Your task to perform on an android device: Go to settings Image 0: 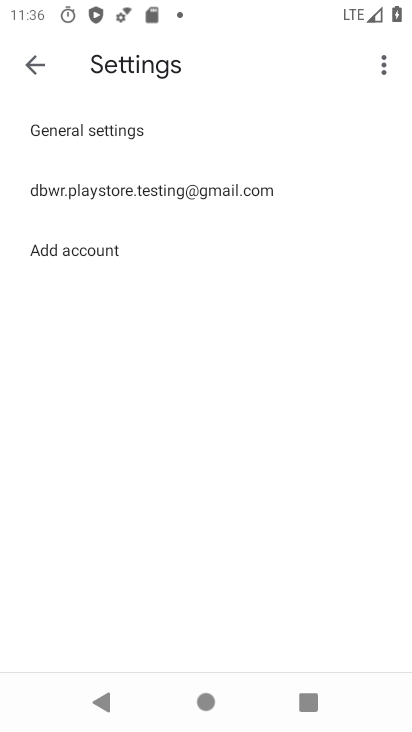
Step 0: press home button
Your task to perform on an android device: Go to settings Image 1: 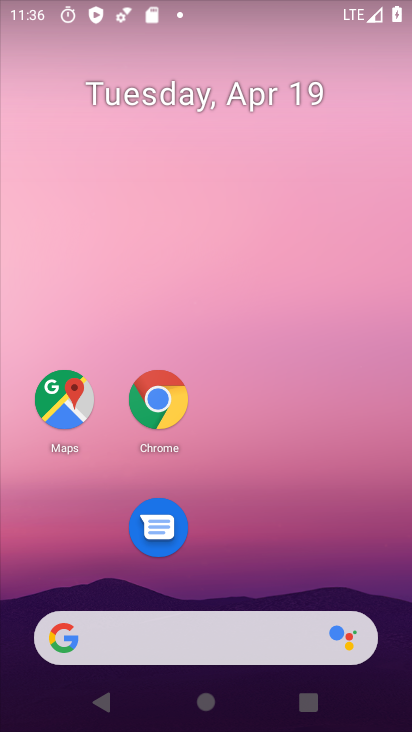
Step 1: drag from (235, 661) to (241, 256)
Your task to perform on an android device: Go to settings Image 2: 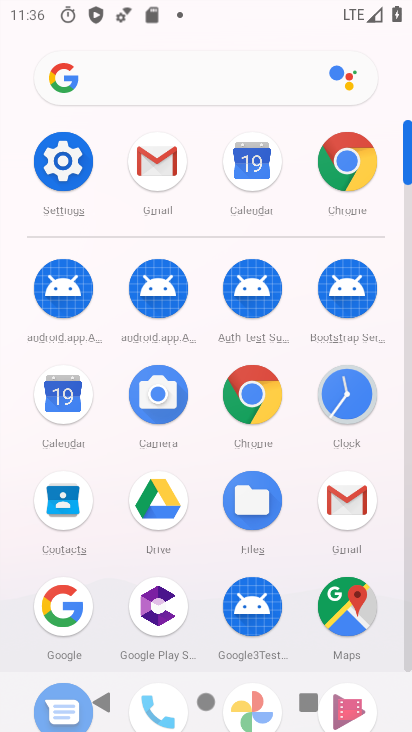
Step 2: click (74, 168)
Your task to perform on an android device: Go to settings Image 3: 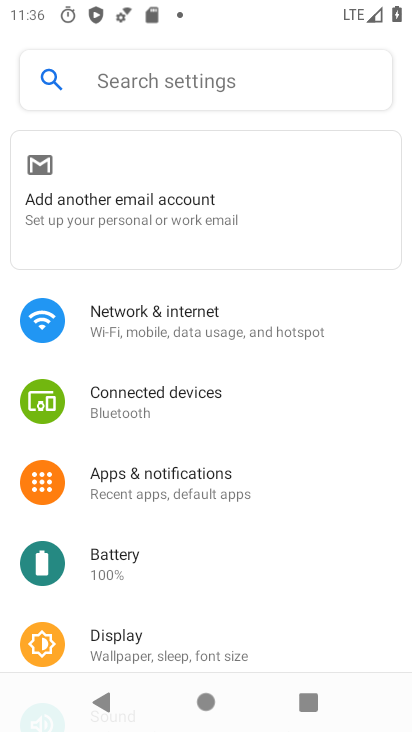
Step 3: click (192, 75)
Your task to perform on an android device: Go to settings Image 4: 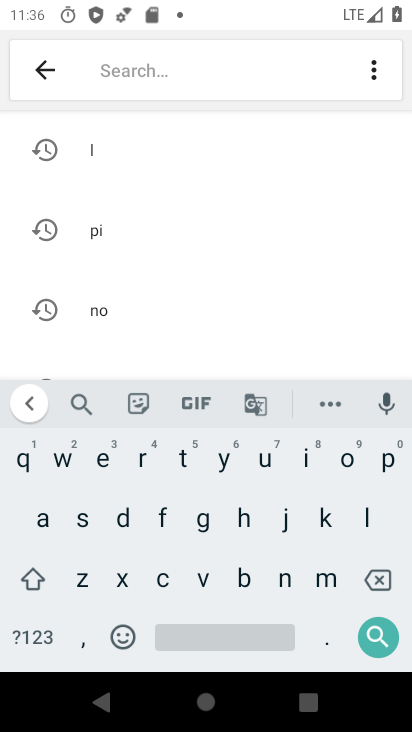
Step 4: click (90, 520)
Your task to perform on an android device: Go to settings Image 5: 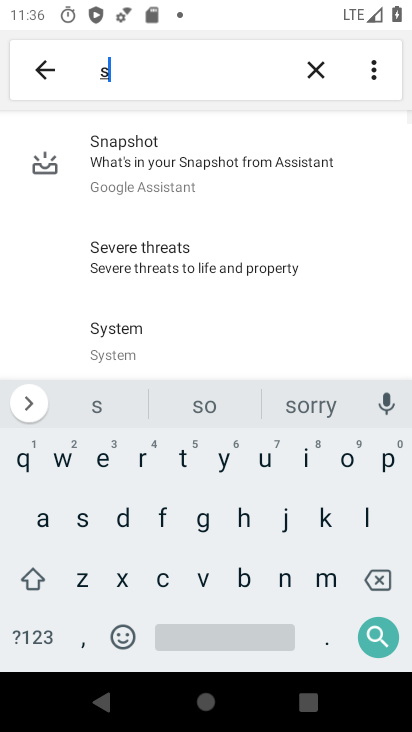
Step 5: click (89, 470)
Your task to perform on an android device: Go to settings Image 6: 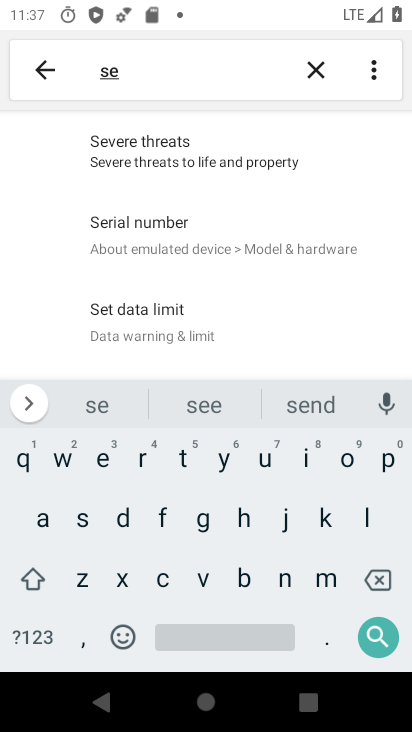
Step 6: click (181, 458)
Your task to perform on an android device: Go to settings Image 7: 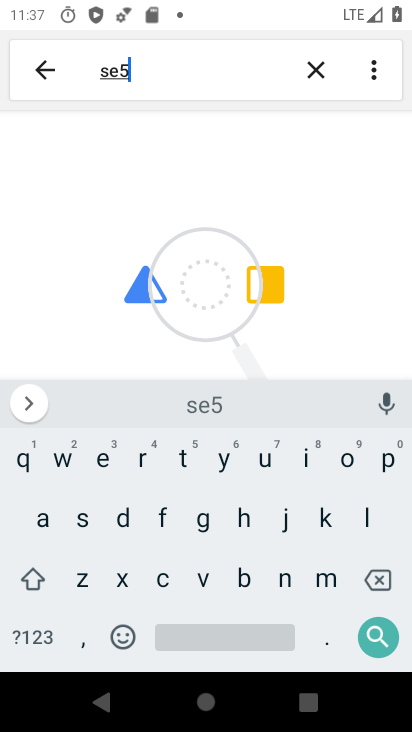
Step 7: click (388, 578)
Your task to perform on an android device: Go to settings Image 8: 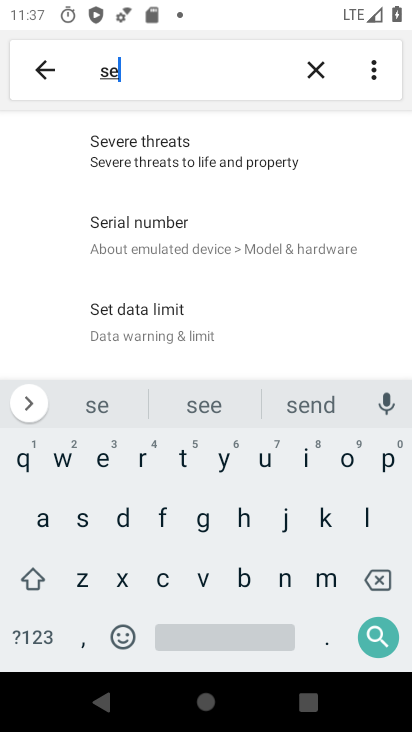
Step 8: click (185, 461)
Your task to perform on an android device: Go to settings Image 9: 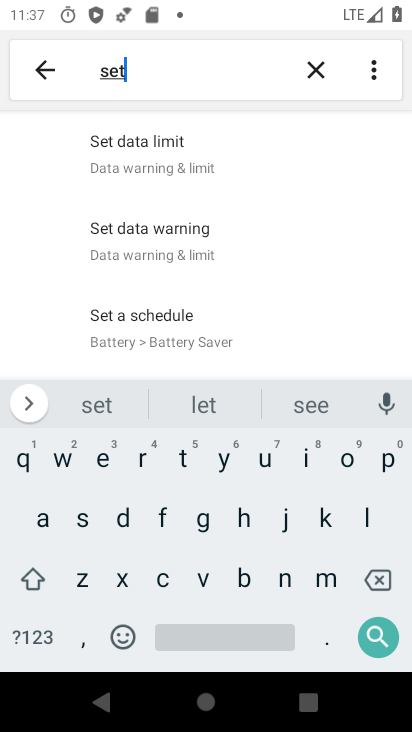
Step 9: click (185, 461)
Your task to perform on an android device: Go to settings Image 10: 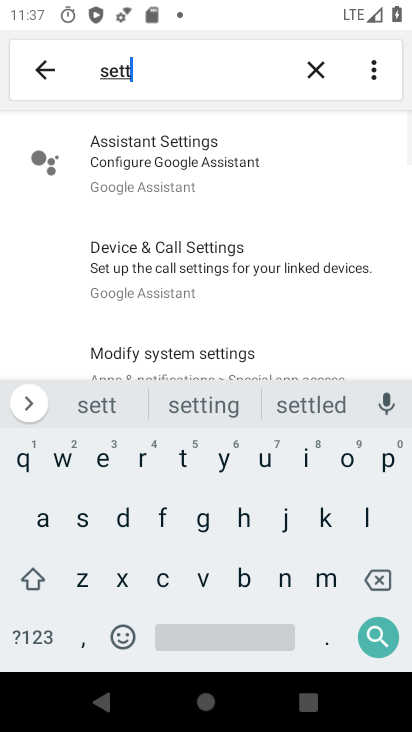
Step 10: drag from (239, 474) to (212, 406)
Your task to perform on an android device: Go to settings Image 11: 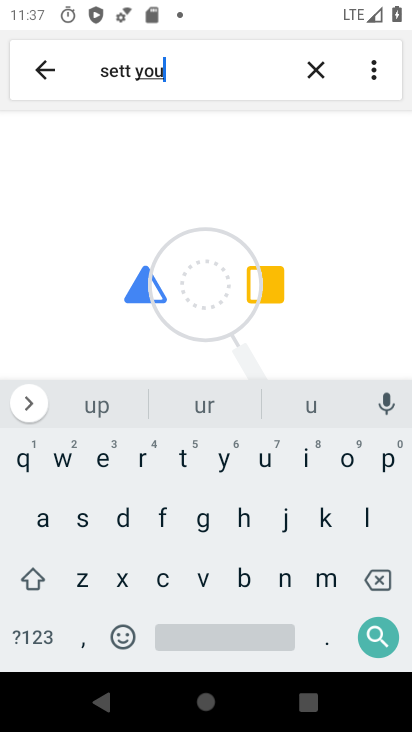
Step 11: click (383, 576)
Your task to perform on an android device: Go to settings Image 12: 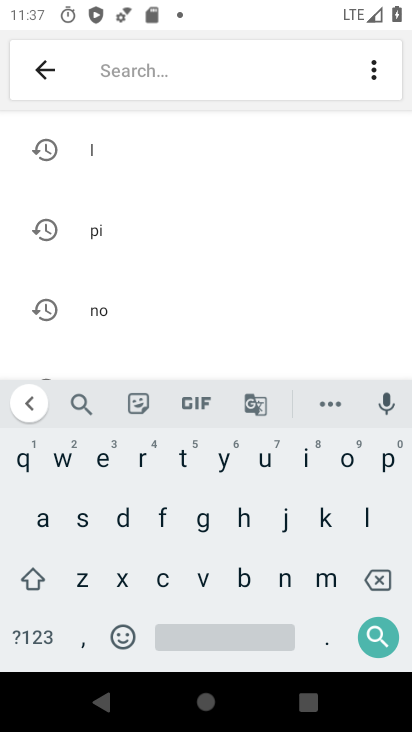
Step 12: click (79, 520)
Your task to perform on an android device: Go to settings Image 13: 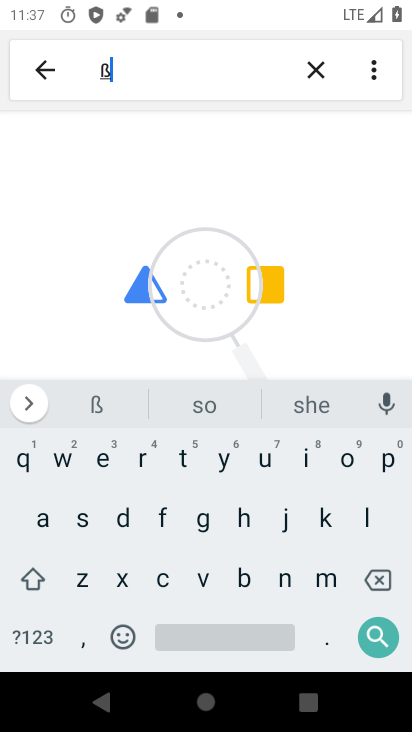
Step 13: click (377, 576)
Your task to perform on an android device: Go to settings Image 14: 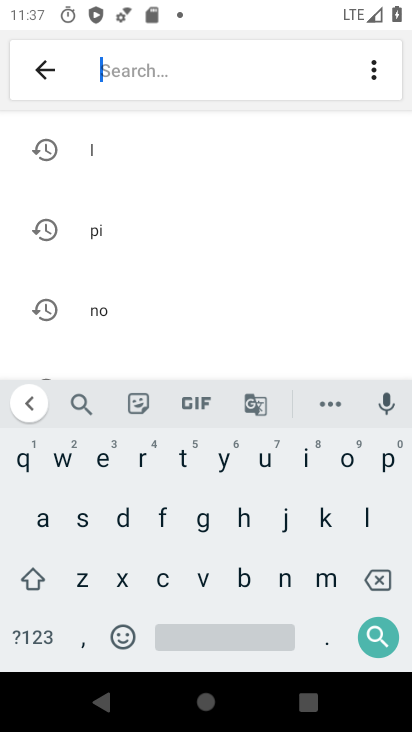
Step 14: click (84, 521)
Your task to perform on an android device: Go to settings Image 15: 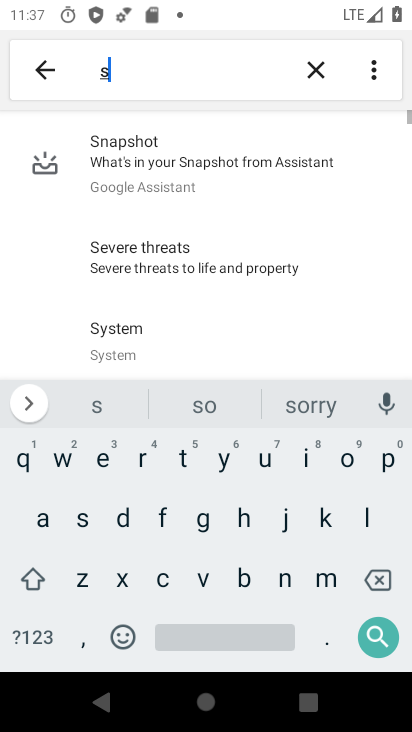
Step 15: click (104, 464)
Your task to perform on an android device: Go to settings Image 16: 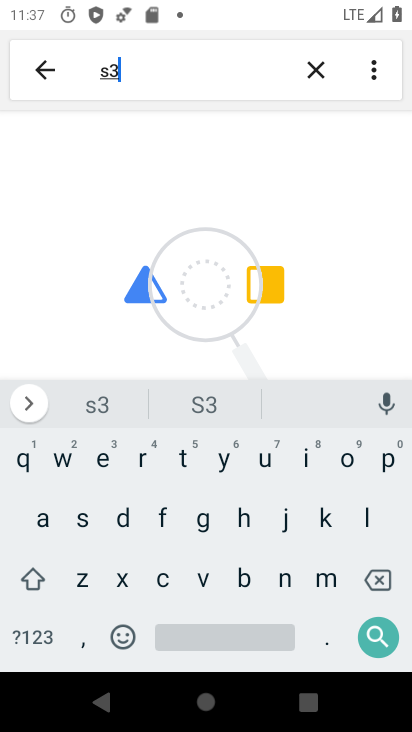
Step 16: click (376, 580)
Your task to perform on an android device: Go to settings Image 17: 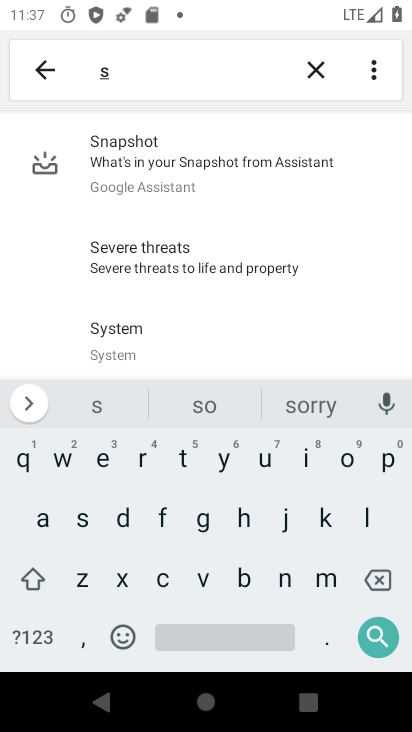
Step 17: click (98, 460)
Your task to perform on an android device: Go to settings Image 18: 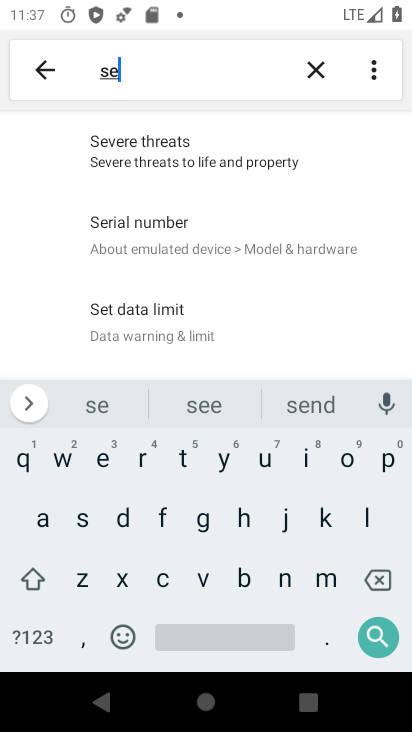
Step 18: click (183, 463)
Your task to perform on an android device: Go to settings Image 19: 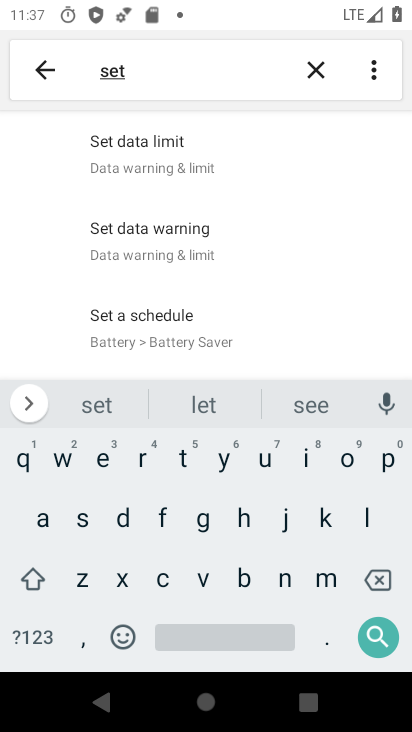
Step 19: click (183, 463)
Your task to perform on an android device: Go to settings Image 20: 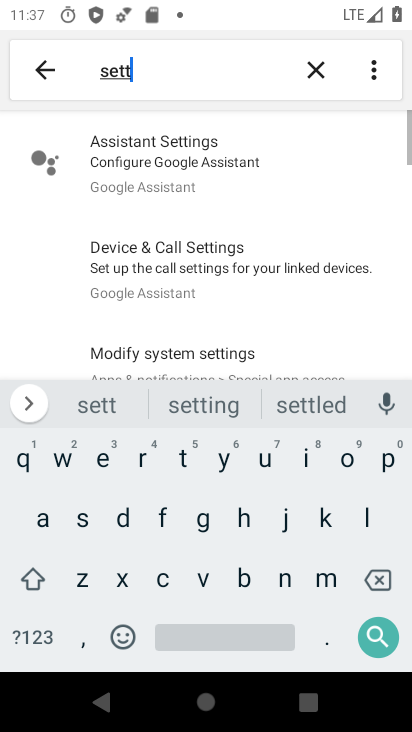
Step 20: drag from (196, 463) to (212, 403)
Your task to perform on an android device: Go to settings Image 21: 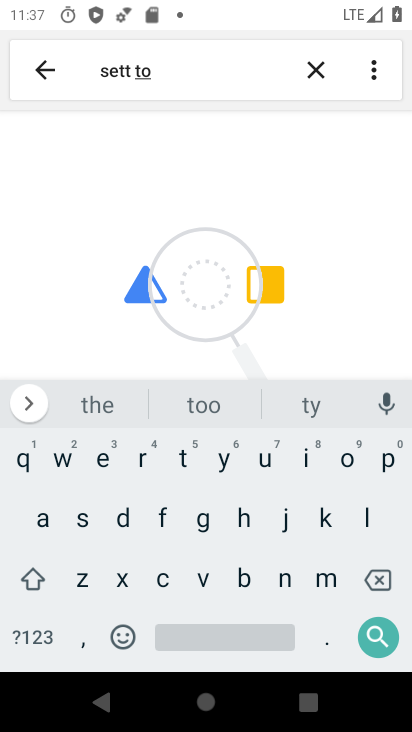
Step 21: click (380, 576)
Your task to perform on an android device: Go to settings Image 22: 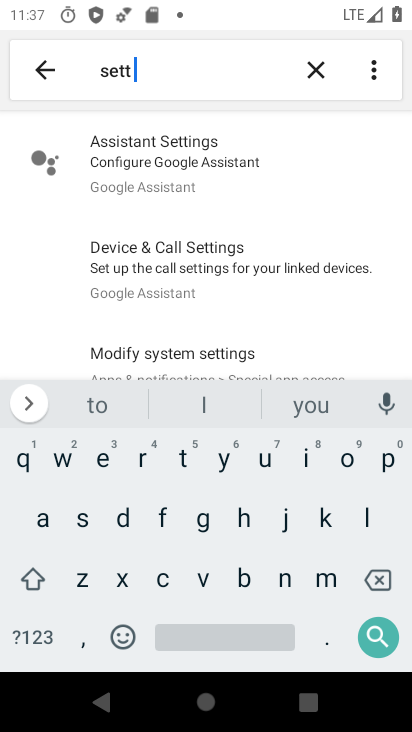
Step 22: click (380, 576)
Your task to perform on an android device: Go to settings Image 23: 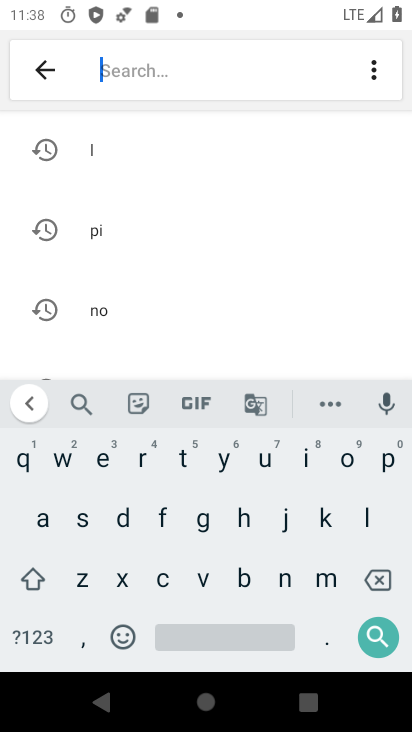
Step 23: click (78, 527)
Your task to perform on an android device: Go to settings Image 24: 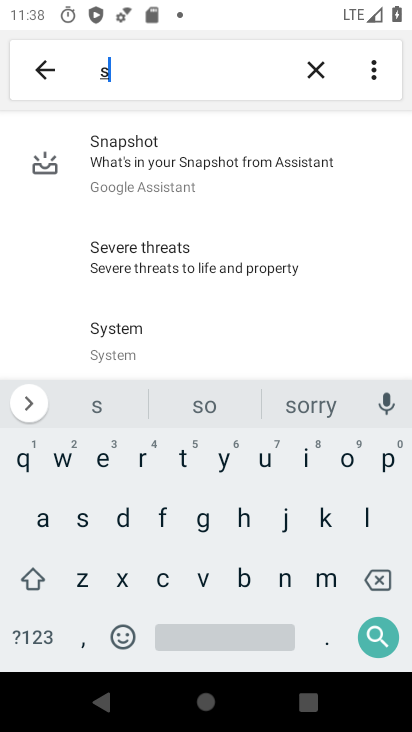
Step 24: click (101, 466)
Your task to perform on an android device: Go to settings Image 25: 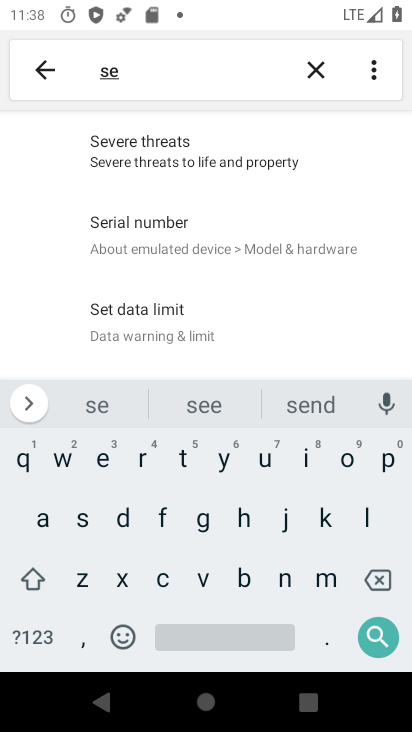
Step 25: click (177, 461)
Your task to perform on an android device: Go to settings Image 26: 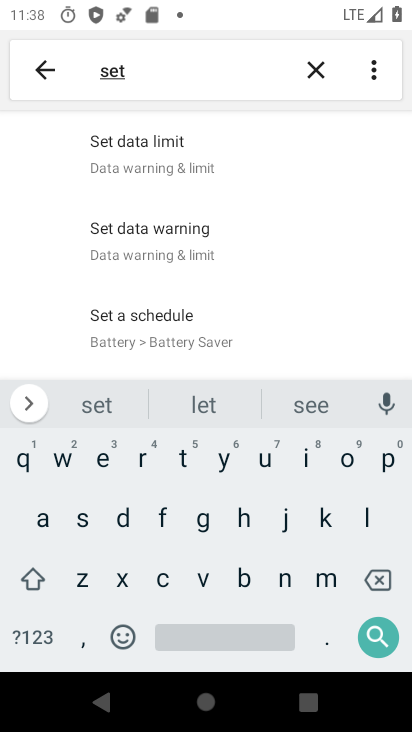
Step 26: click (178, 461)
Your task to perform on an android device: Go to settings Image 27: 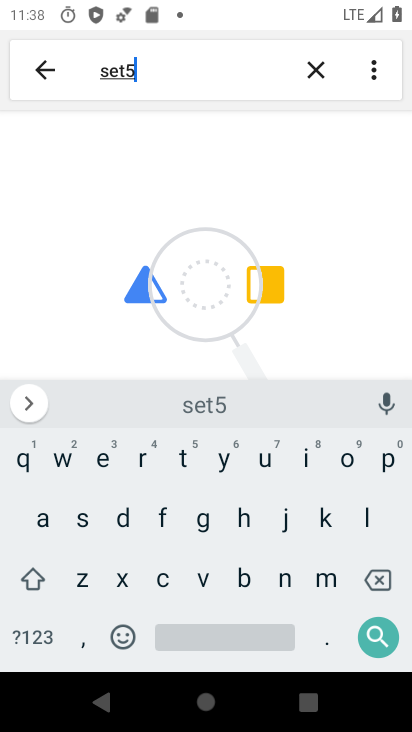
Step 27: click (392, 573)
Your task to perform on an android device: Go to settings Image 28: 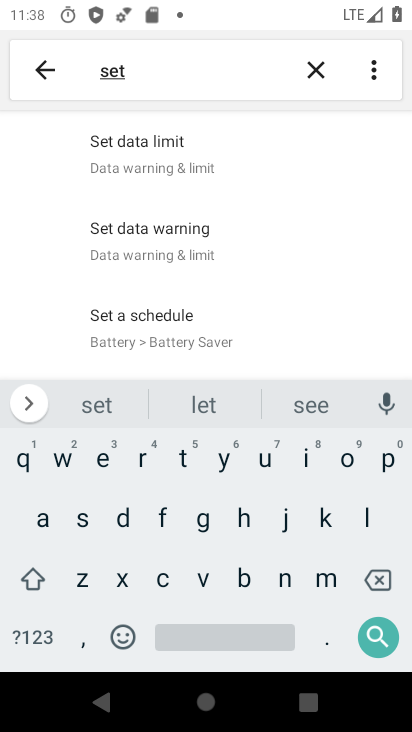
Step 28: drag from (216, 334) to (201, 163)
Your task to perform on an android device: Go to settings Image 29: 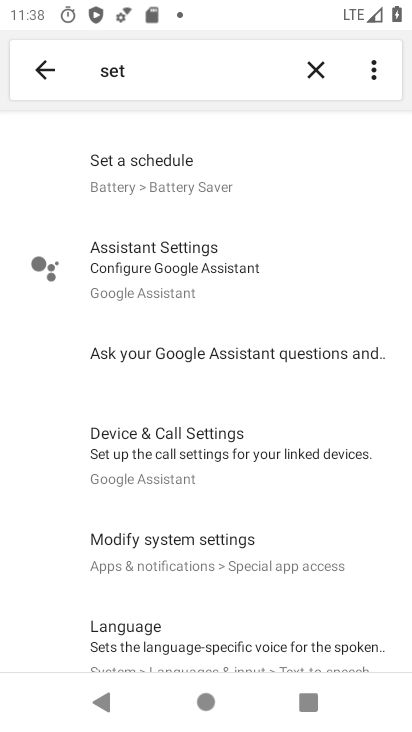
Step 29: click (151, 550)
Your task to perform on an android device: Go to settings Image 30: 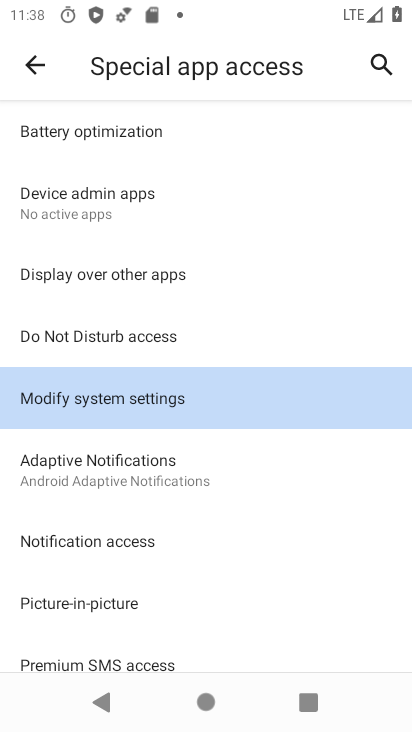
Step 30: task complete